Your task to perform on an android device: turn notification dots off Image 0: 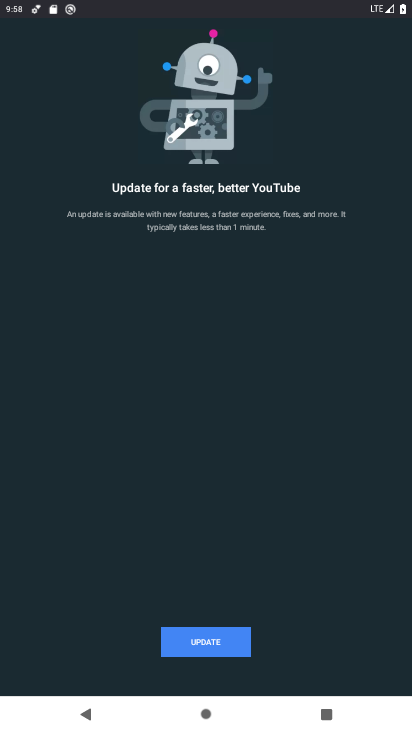
Step 0: press home button
Your task to perform on an android device: turn notification dots off Image 1: 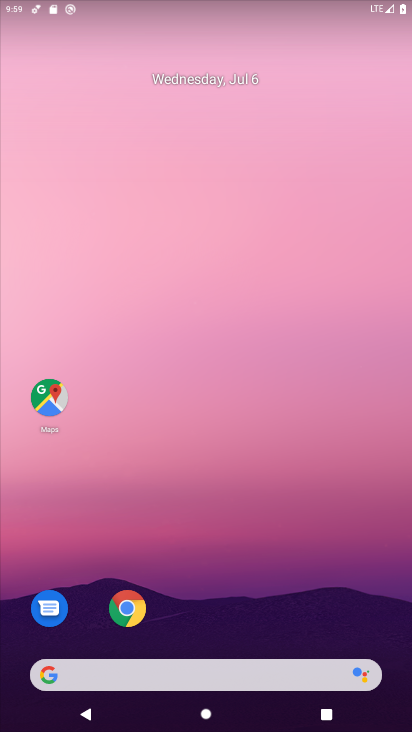
Step 1: drag from (200, 600) to (288, 10)
Your task to perform on an android device: turn notification dots off Image 2: 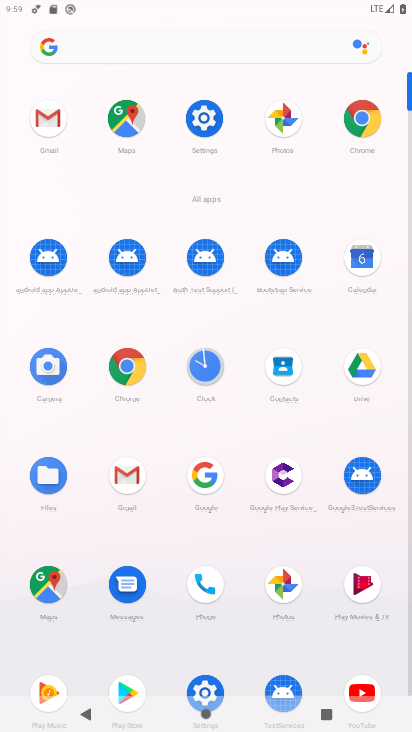
Step 2: click (205, 683)
Your task to perform on an android device: turn notification dots off Image 3: 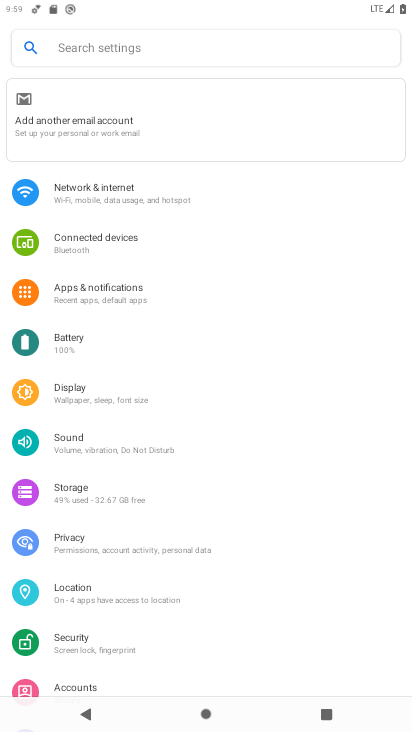
Step 3: click (129, 285)
Your task to perform on an android device: turn notification dots off Image 4: 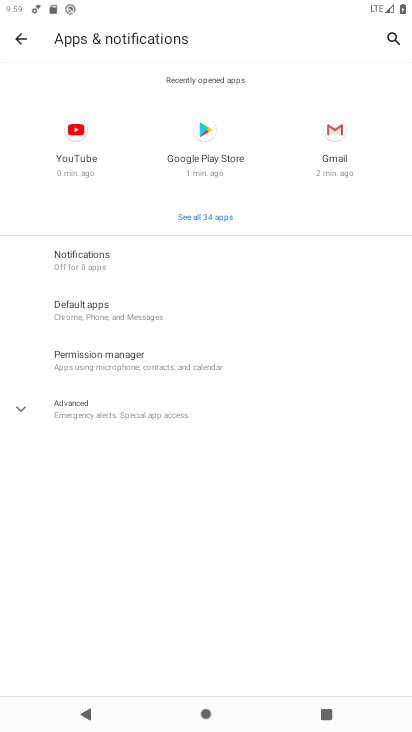
Step 4: click (105, 248)
Your task to perform on an android device: turn notification dots off Image 5: 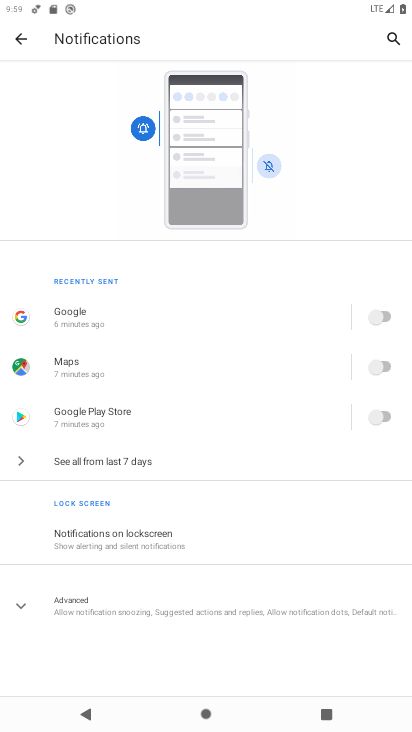
Step 5: click (125, 591)
Your task to perform on an android device: turn notification dots off Image 6: 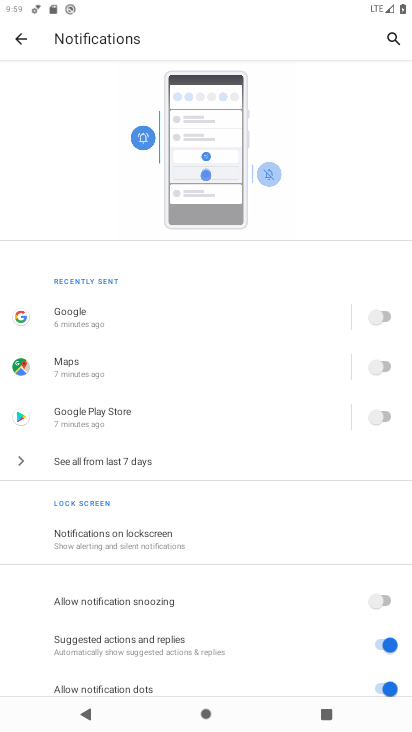
Step 6: drag from (130, 560) to (134, 400)
Your task to perform on an android device: turn notification dots off Image 7: 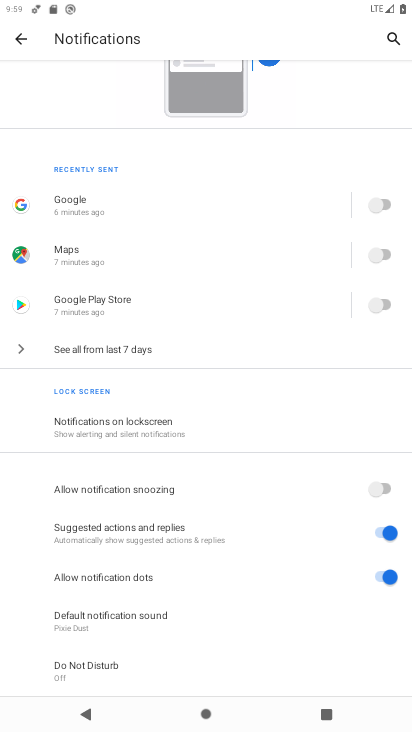
Step 7: click (377, 568)
Your task to perform on an android device: turn notification dots off Image 8: 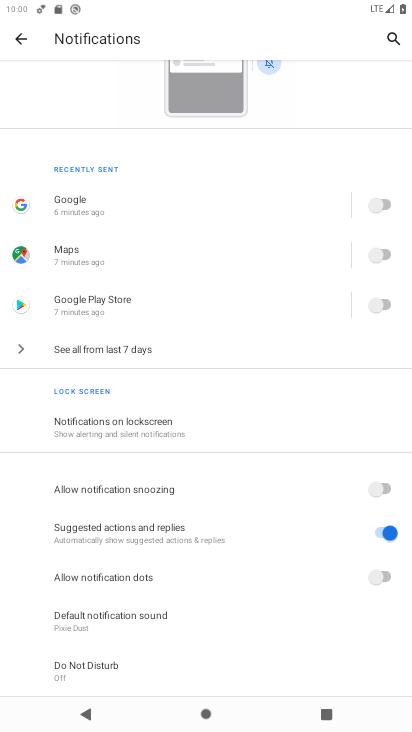
Step 8: task complete